Your task to perform on an android device: When is my next meeting? Image 0: 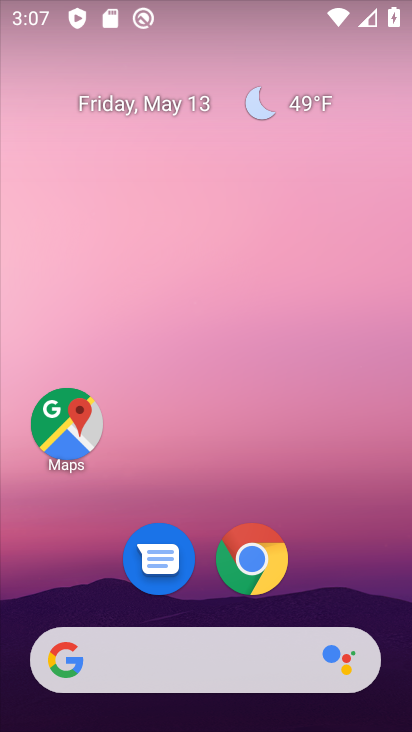
Step 0: drag from (392, 665) to (269, 97)
Your task to perform on an android device: When is my next meeting? Image 1: 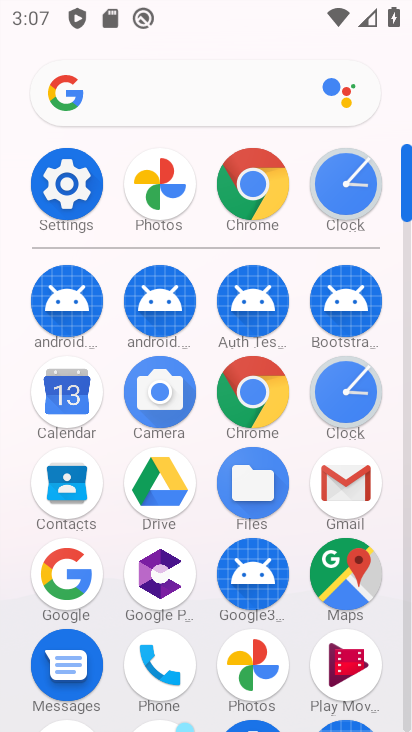
Step 1: click (62, 392)
Your task to perform on an android device: When is my next meeting? Image 2: 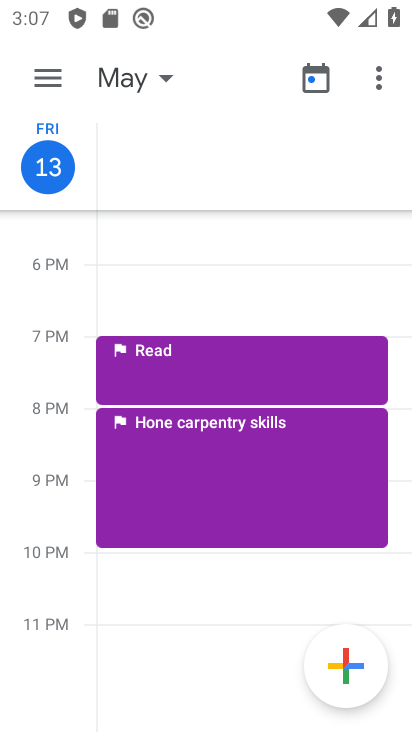
Step 2: click (49, 69)
Your task to perform on an android device: When is my next meeting? Image 3: 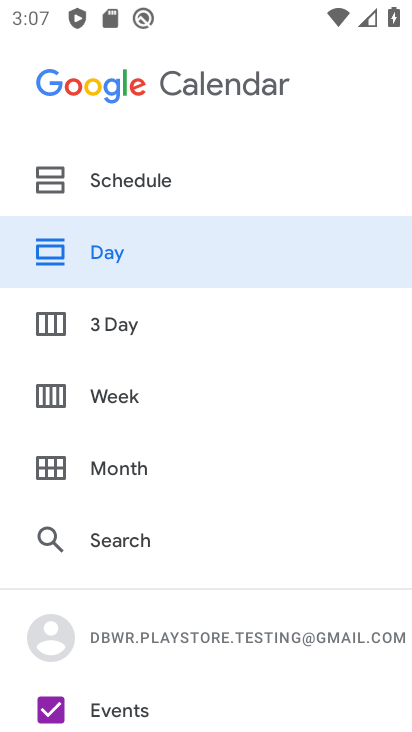
Step 3: click (124, 183)
Your task to perform on an android device: When is my next meeting? Image 4: 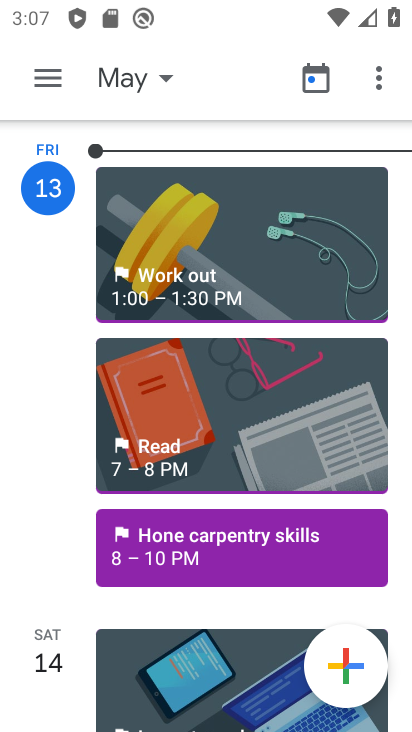
Step 4: task complete